Your task to perform on an android device: change text size in settings app Image 0: 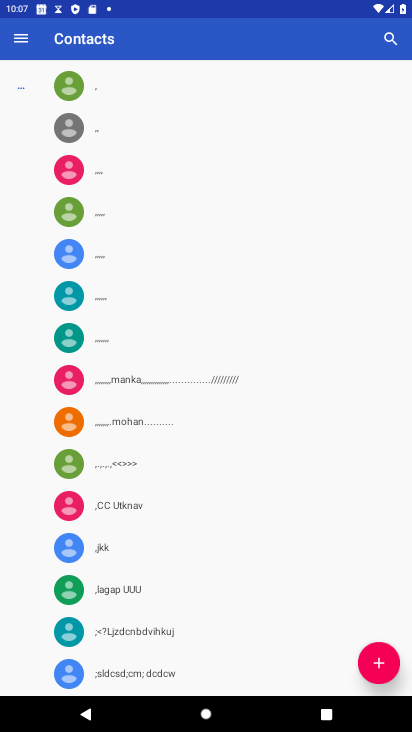
Step 0: press home button
Your task to perform on an android device: change text size in settings app Image 1: 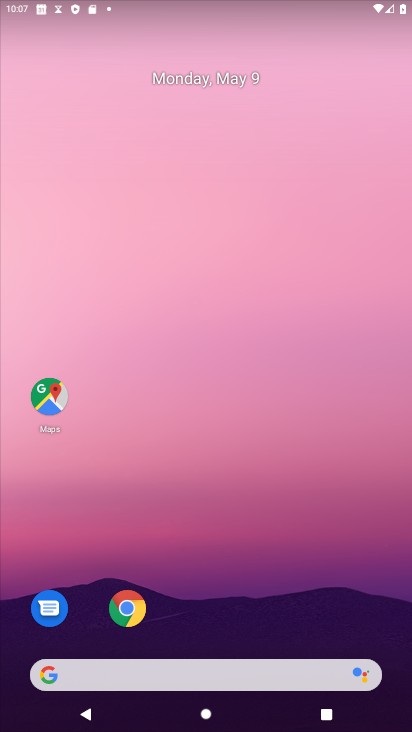
Step 1: drag from (192, 648) to (230, 118)
Your task to perform on an android device: change text size in settings app Image 2: 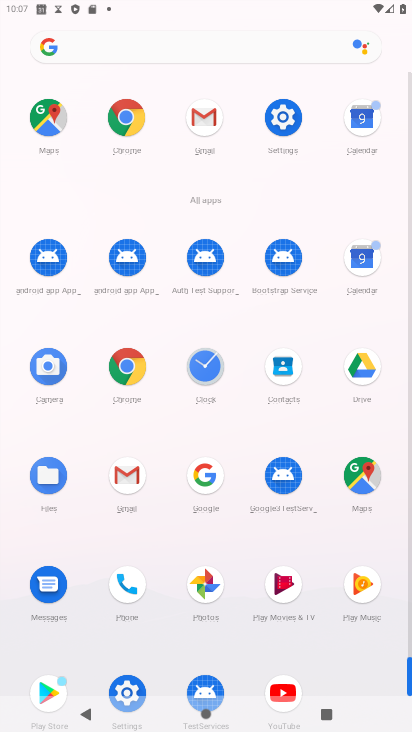
Step 2: click (282, 124)
Your task to perform on an android device: change text size in settings app Image 3: 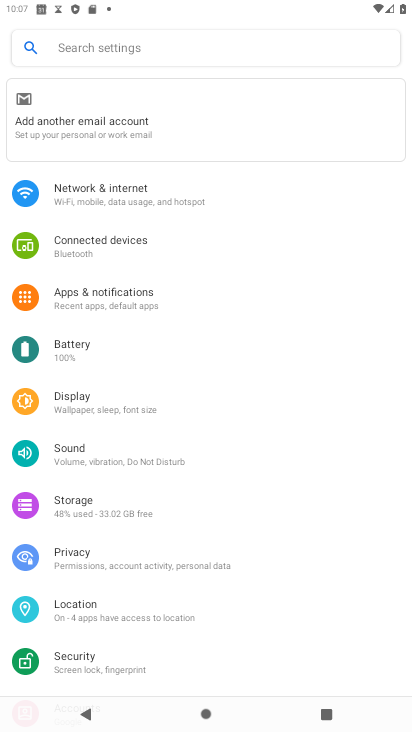
Step 3: click (110, 395)
Your task to perform on an android device: change text size in settings app Image 4: 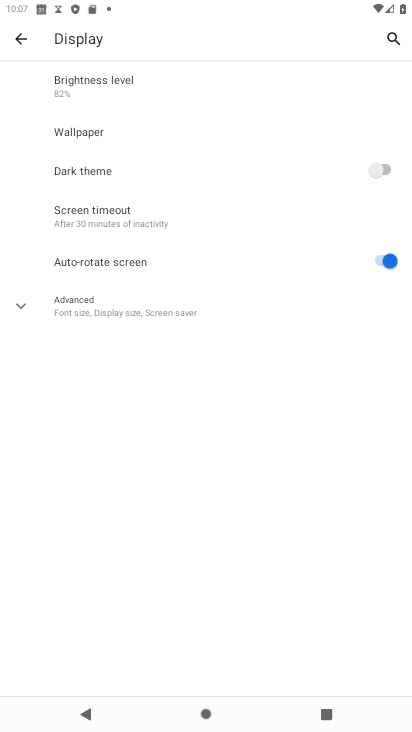
Step 4: click (119, 317)
Your task to perform on an android device: change text size in settings app Image 5: 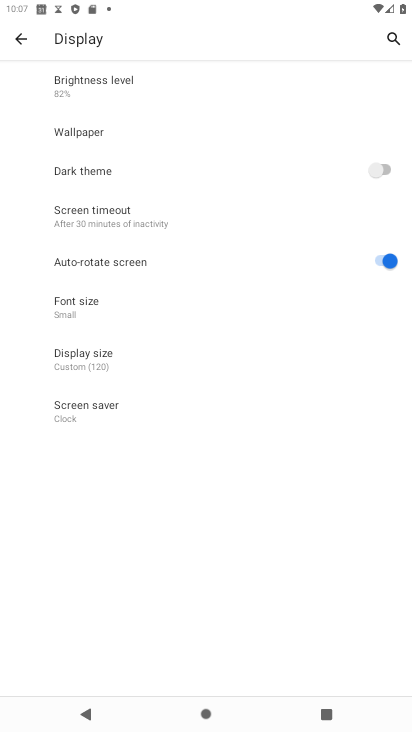
Step 5: click (100, 315)
Your task to perform on an android device: change text size in settings app Image 6: 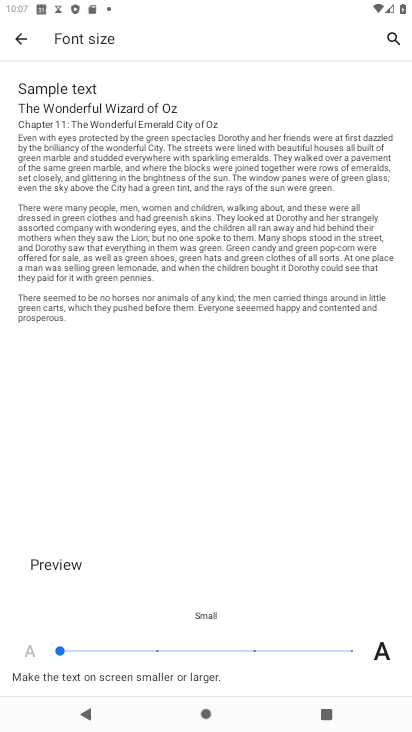
Step 6: click (153, 644)
Your task to perform on an android device: change text size in settings app Image 7: 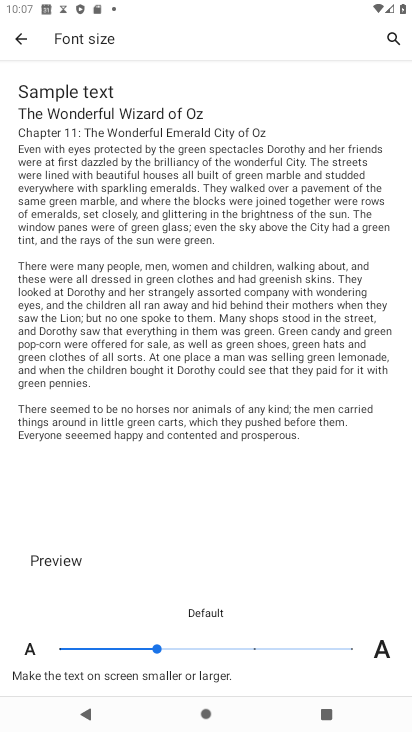
Step 7: task complete